Your task to perform on an android device: turn smart compose on in the gmail app Image 0: 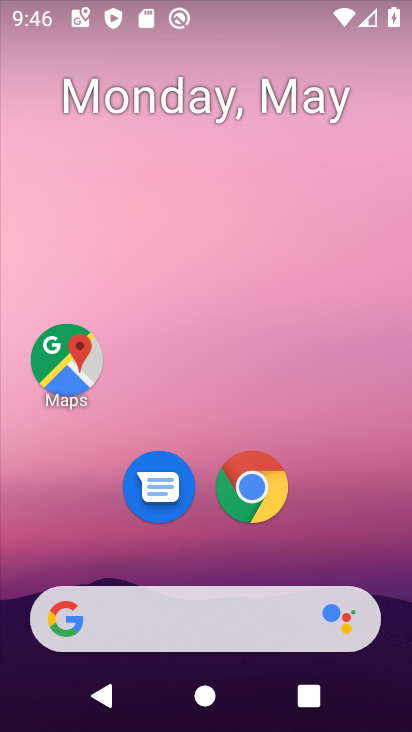
Step 0: drag from (312, 525) to (306, 9)
Your task to perform on an android device: turn smart compose on in the gmail app Image 1: 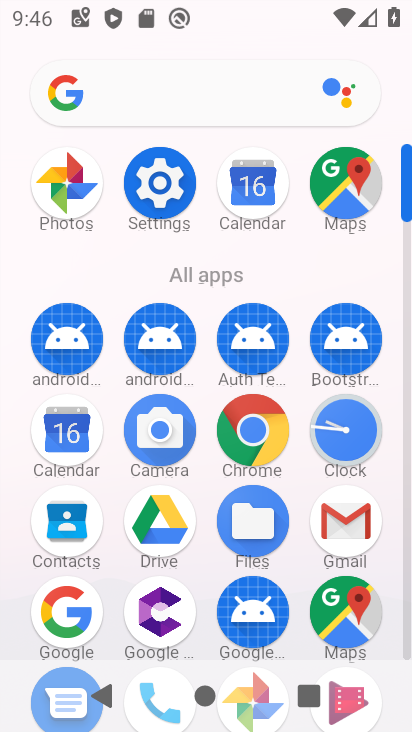
Step 1: click (338, 527)
Your task to perform on an android device: turn smart compose on in the gmail app Image 2: 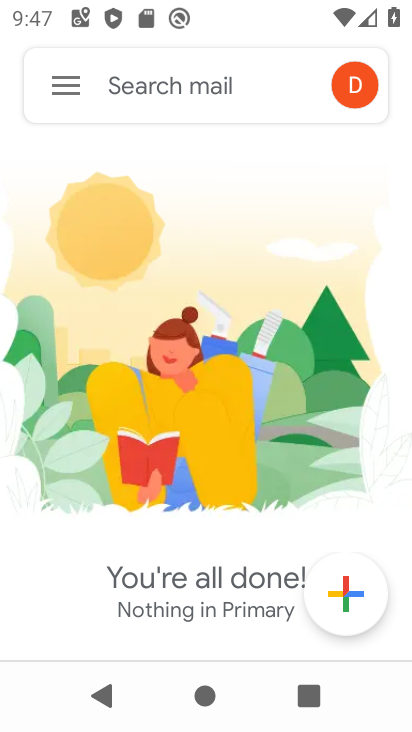
Step 2: click (63, 79)
Your task to perform on an android device: turn smart compose on in the gmail app Image 3: 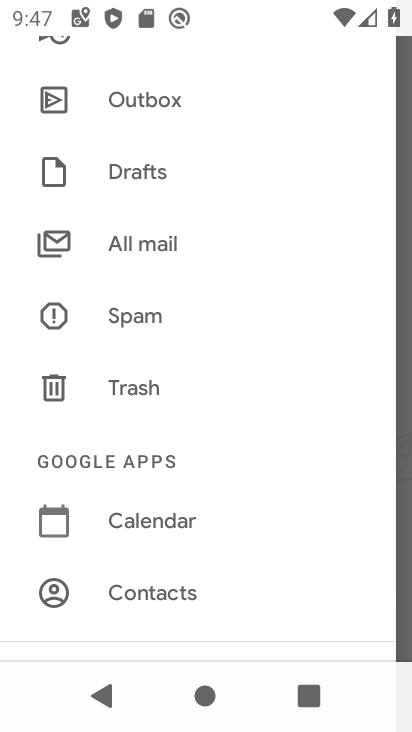
Step 3: drag from (121, 590) to (148, 391)
Your task to perform on an android device: turn smart compose on in the gmail app Image 4: 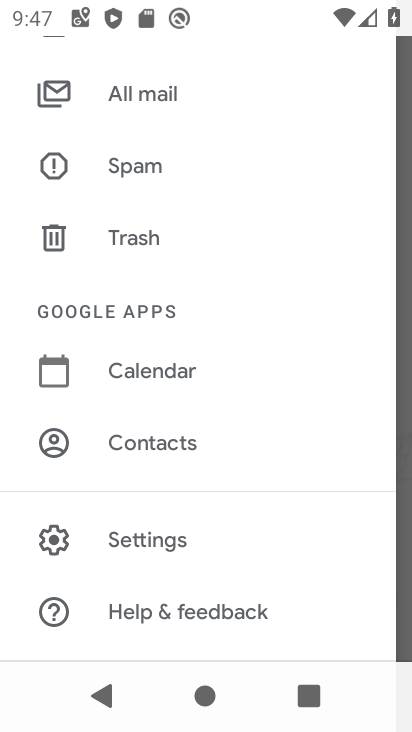
Step 4: click (136, 538)
Your task to perform on an android device: turn smart compose on in the gmail app Image 5: 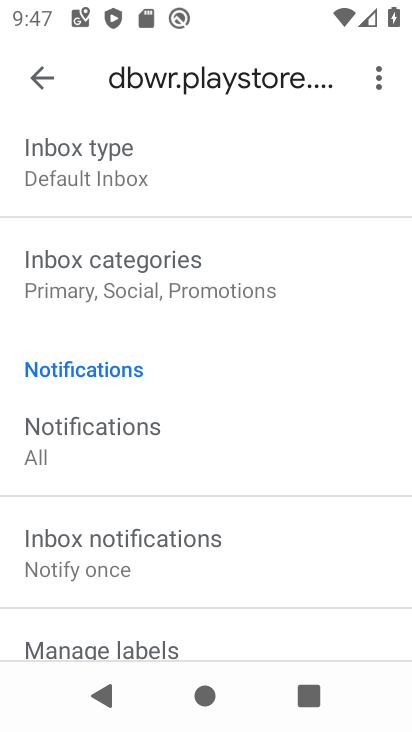
Step 5: task complete